Your task to perform on an android device: toggle notifications settings in the gmail app Image 0: 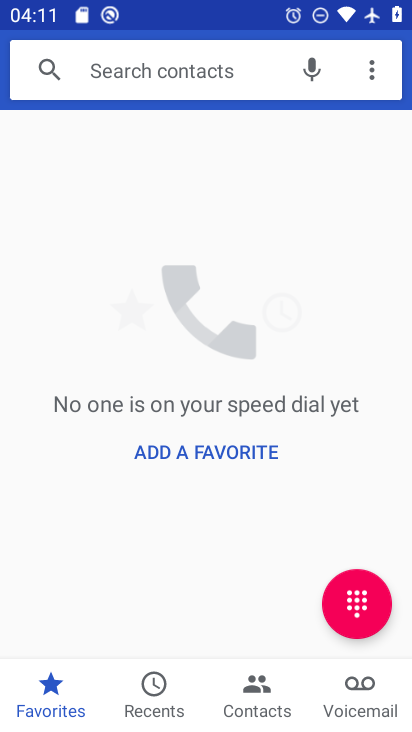
Step 0: press home button
Your task to perform on an android device: toggle notifications settings in the gmail app Image 1: 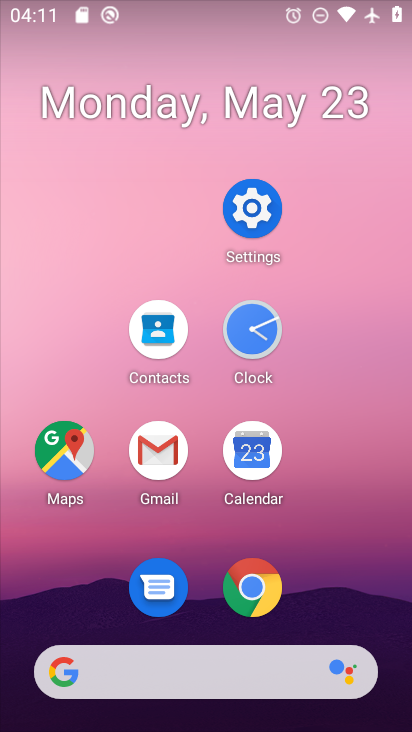
Step 1: click (182, 456)
Your task to perform on an android device: toggle notifications settings in the gmail app Image 2: 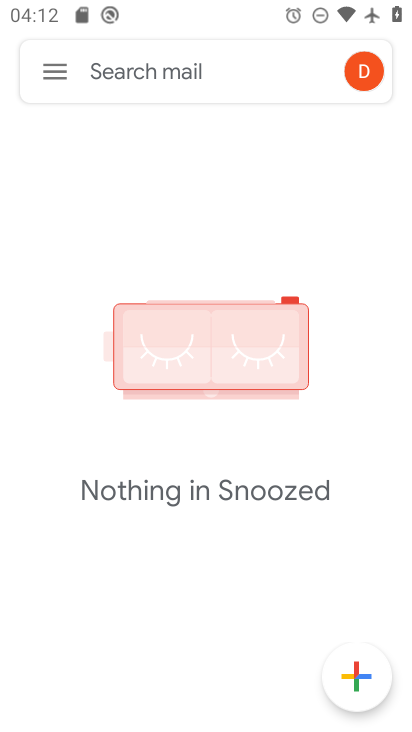
Step 2: click (66, 90)
Your task to perform on an android device: toggle notifications settings in the gmail app Image 3: 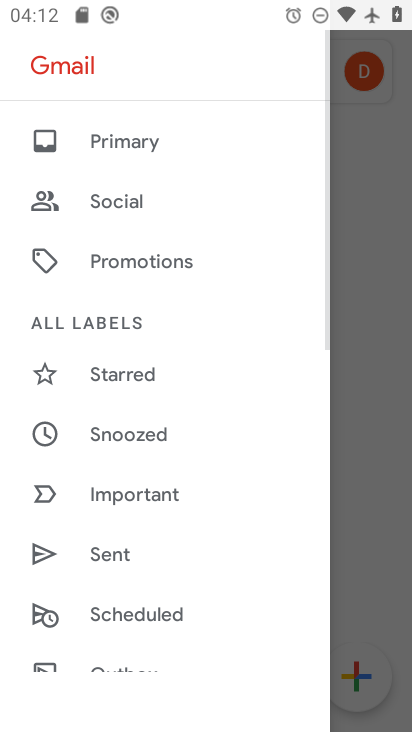
Step 3: drag from (159, 629) to (162, 97)
Your task to perform on an android device: toggle notifications settings in the gmail app Image 4: 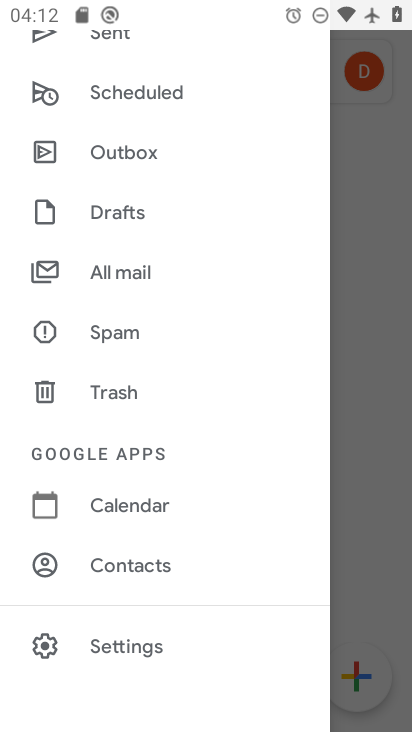
Step 4: click (135, 648)
Your task to perform on an android device: toggle notifications settings in the gmail app Image 5: 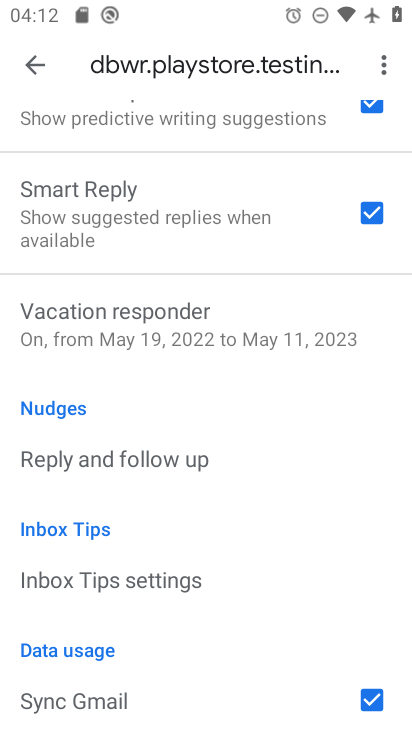
Step 5: drag from (148, 136) to (245, 641)
Your task to perform on an android device: toggle notifications settings in the gmail app Image 6: 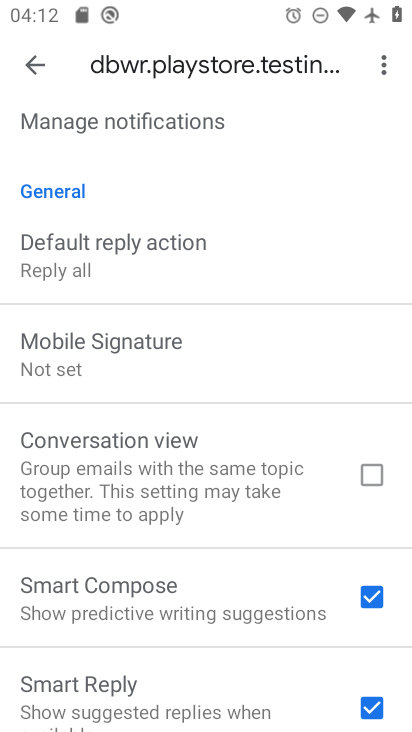
Step 6: drag from (215, 317) to (206, 460)
Your task to perform on an android device: toggle notifications settings in the gmail app Image 7: 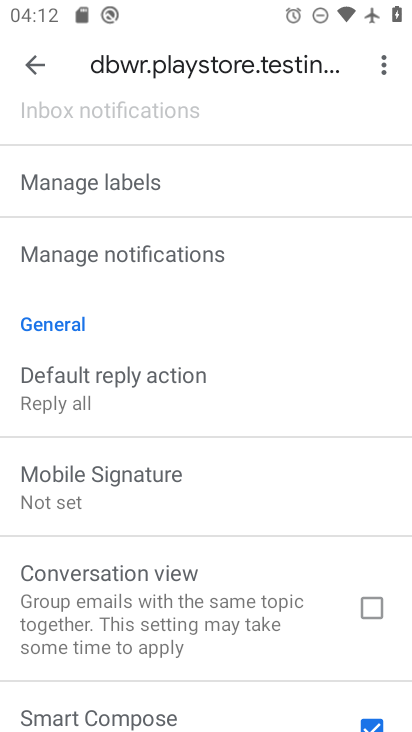
Step 7: click (188, 256)
Your task to perform on an android device: toggle notifications settings in the gmail app Image 8: 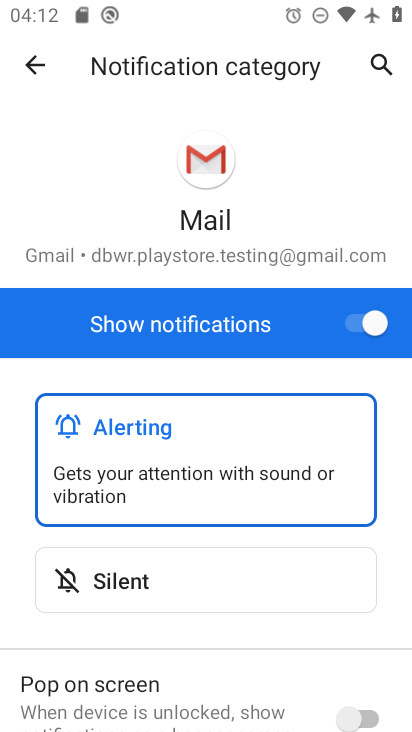
Step 8: click (360, 341)
Your task to perform on an android device: toggle notifications settings in the gmail app Image 9: 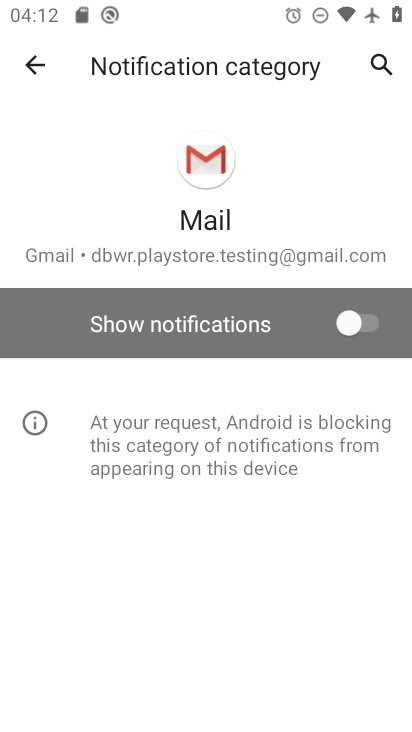
Step 9: task complete